Your task to perform on an android device: change text size in settings app Image 0: 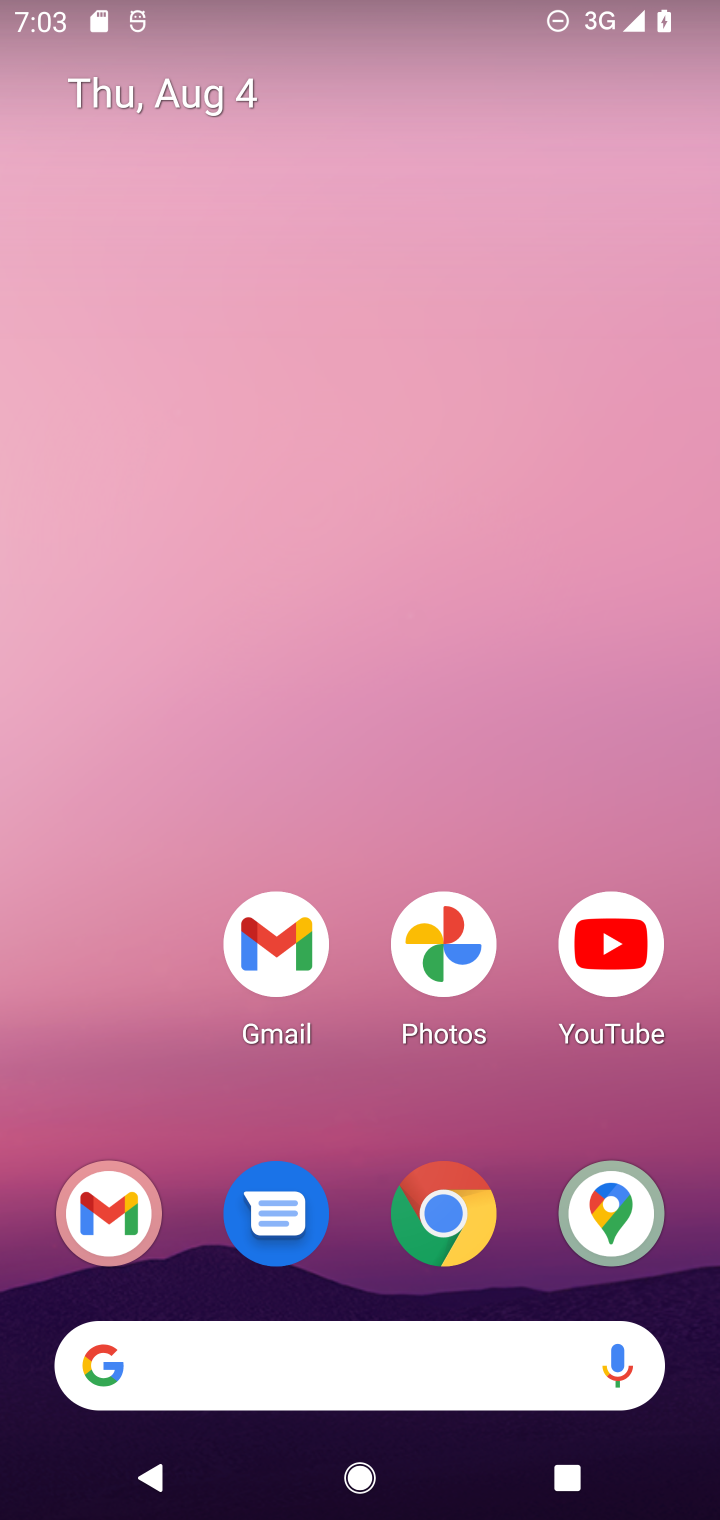
Step 0: drag from (153, 1088) to (144, 345)
Your task to perform on an android device: change text size in settings app Image 1: 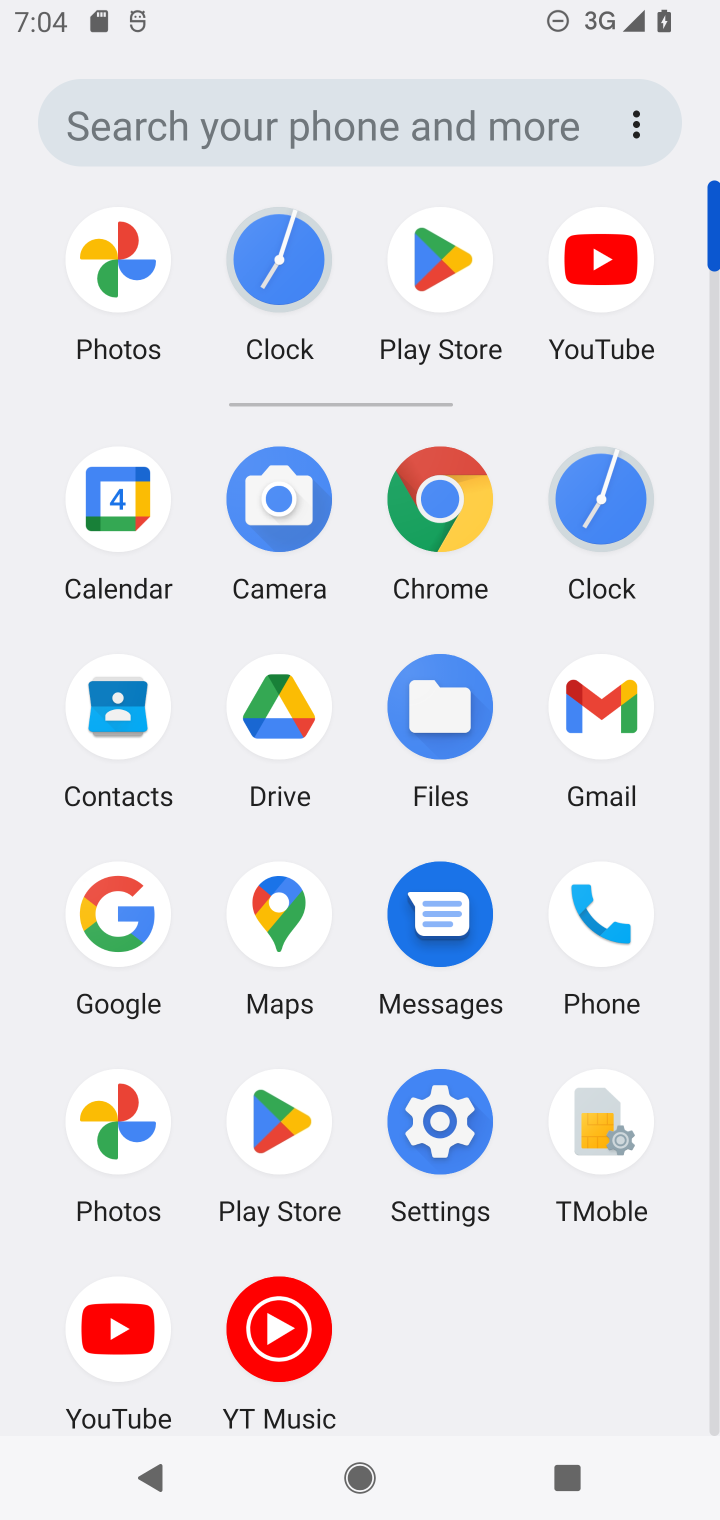
Step 1: click (449, 1135)
Your task to perform on an android device: change text size in settings app Image 2: 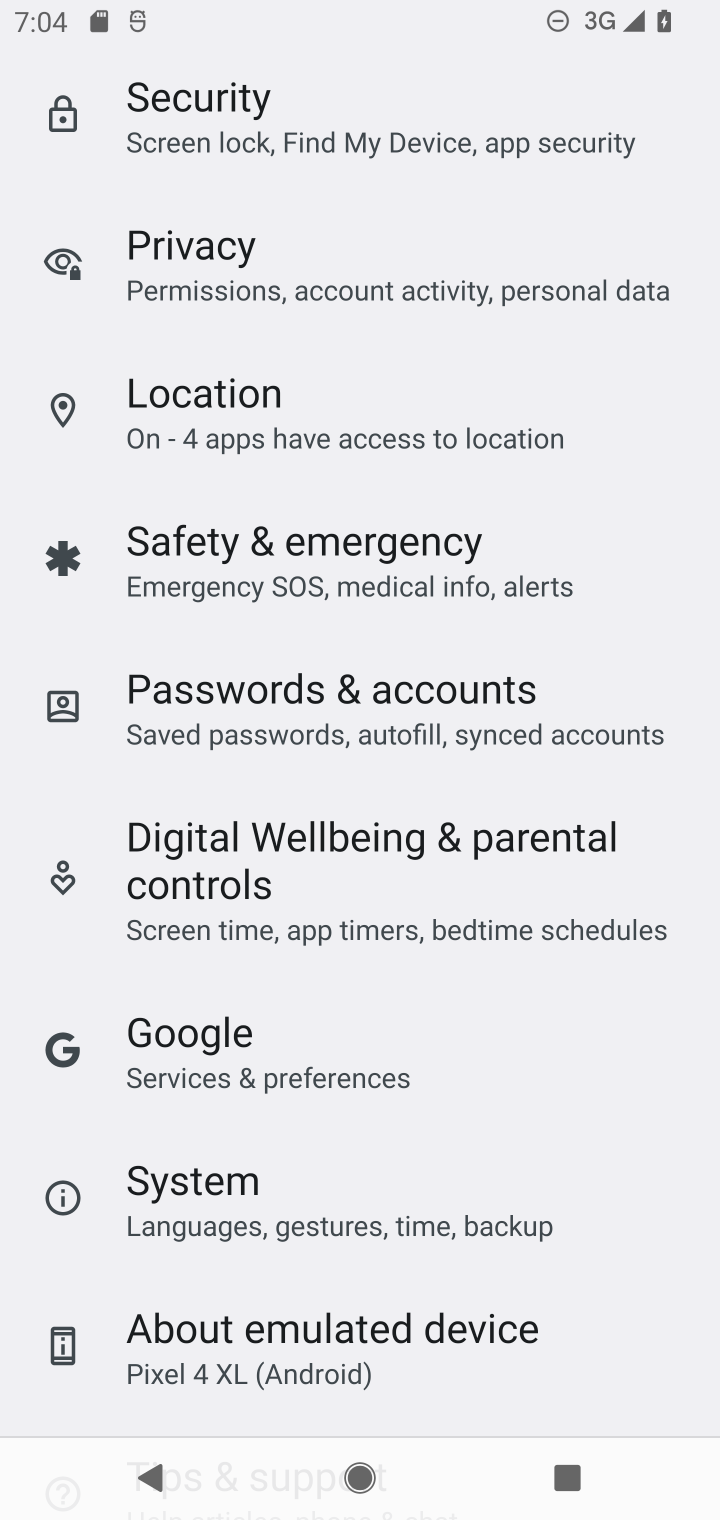
Step 2: drag from (668, 457) to (666, 877)
Your task to perform on an android device: change text size in settings app Image 3: 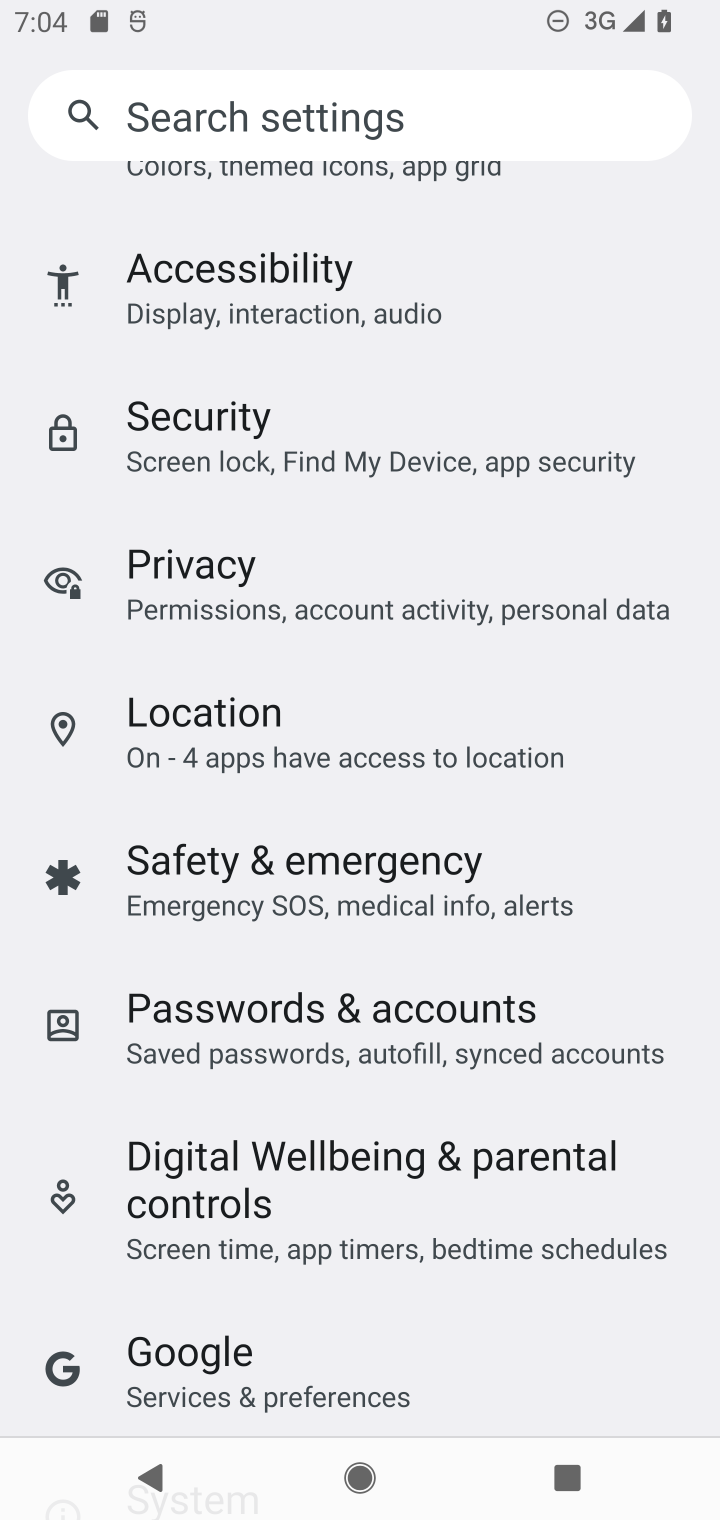
Step 3: drag from (644, 419) to (639, 896)
Your task to perform on an android device: change text size in settings app Image 4: 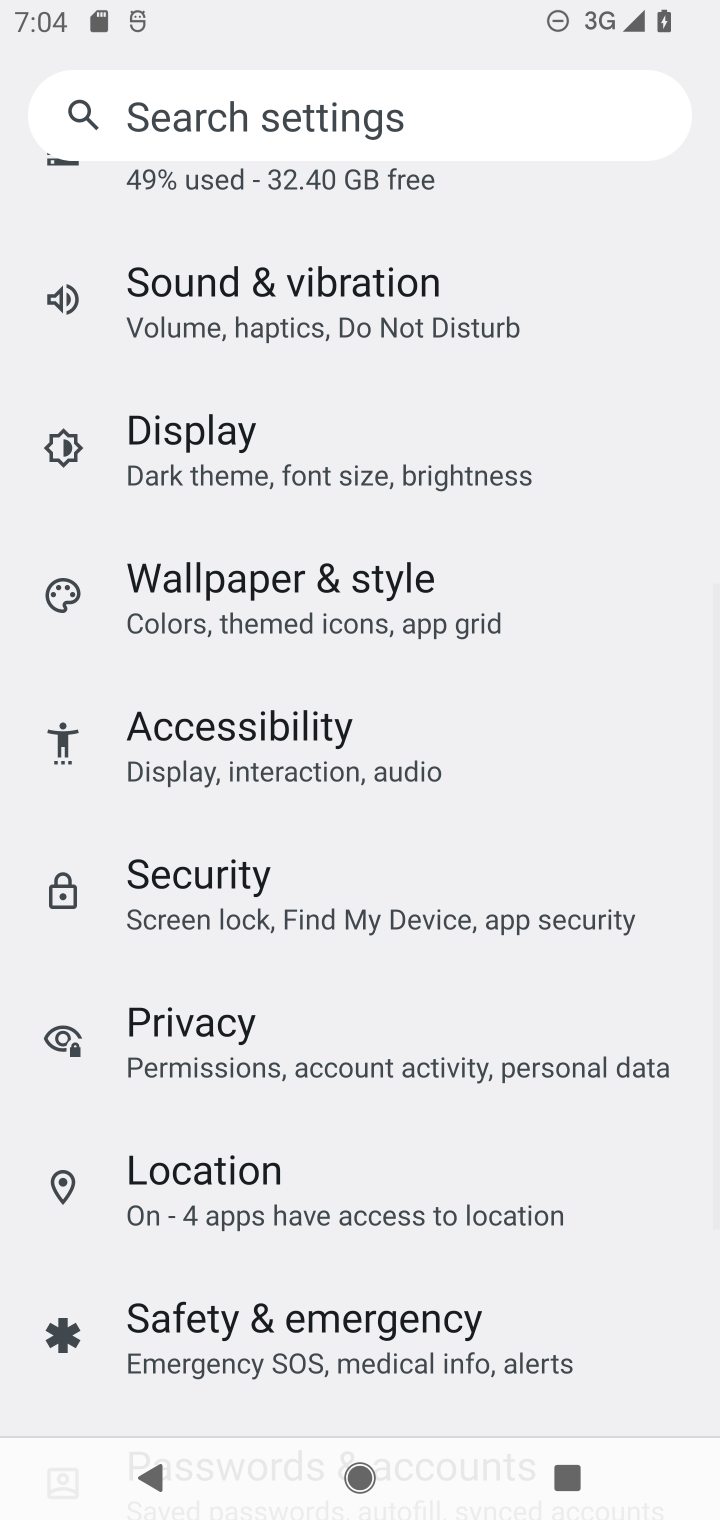
Step 4: drag from (600, 460) to (615, 844)
Your task to perform on an android device: change text size in settings app Image 5: 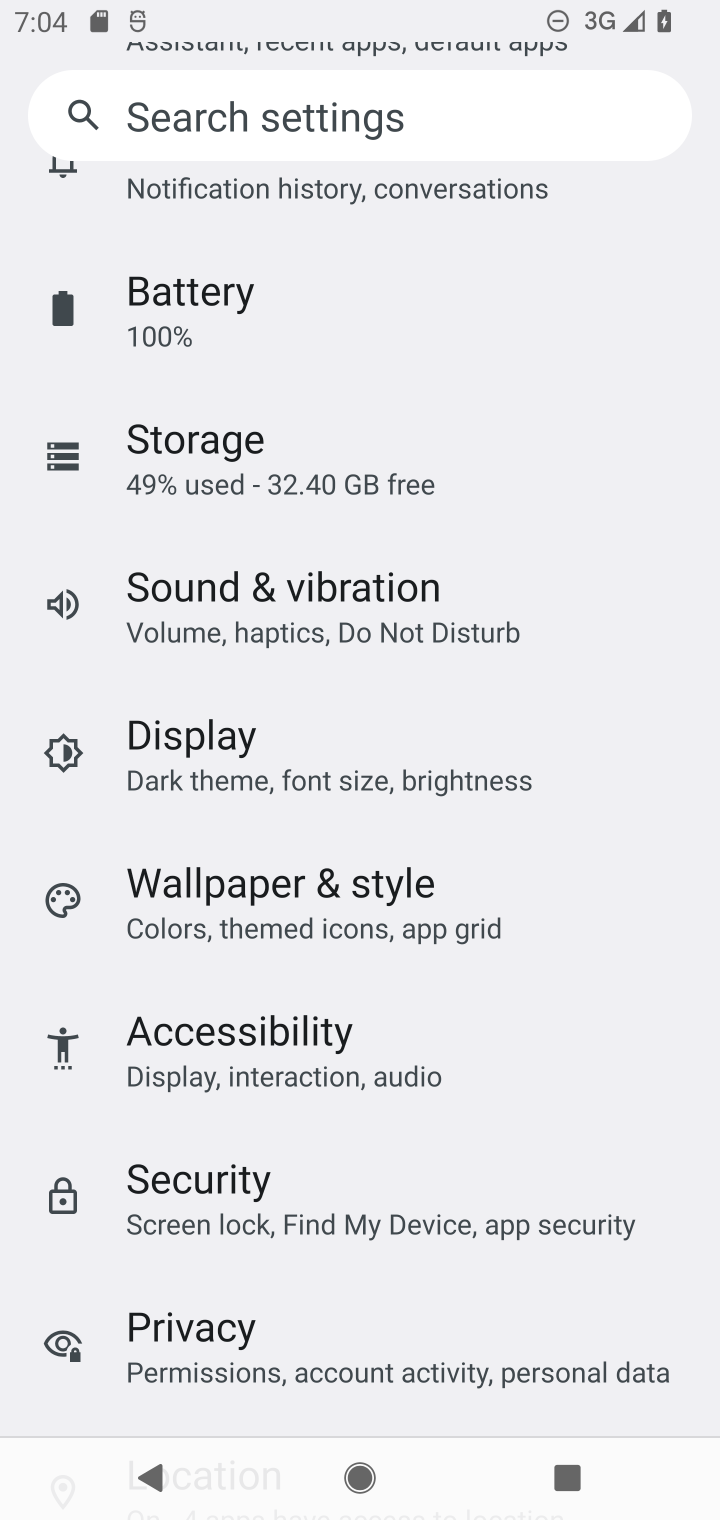
Step 5: drag from (610, 465) to (608, 931)
Your task to perform on an android device: change text size in settings app Image 6: 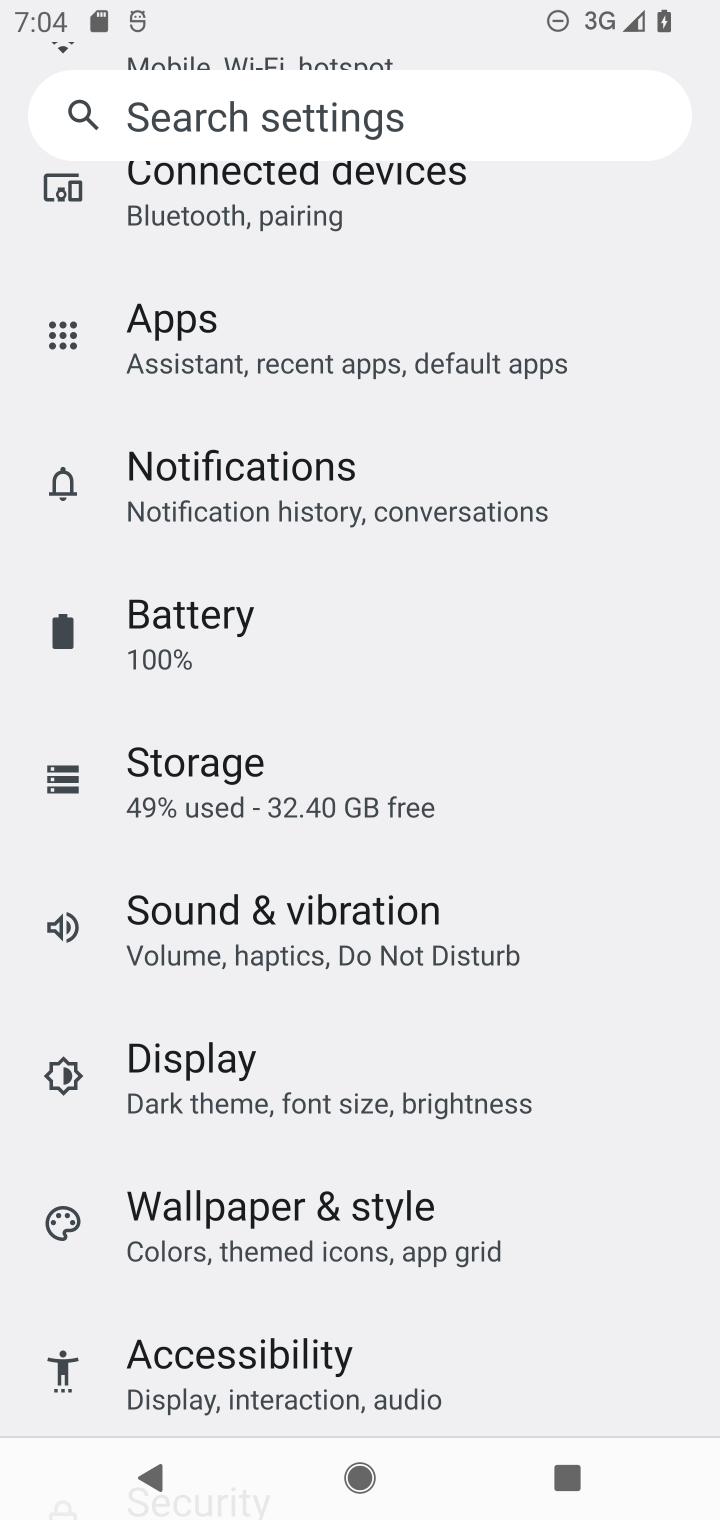
Step 6: drag from (598, 352) to (617, 859)
Your task to perform on an android device: change text size in settings app Image 7: 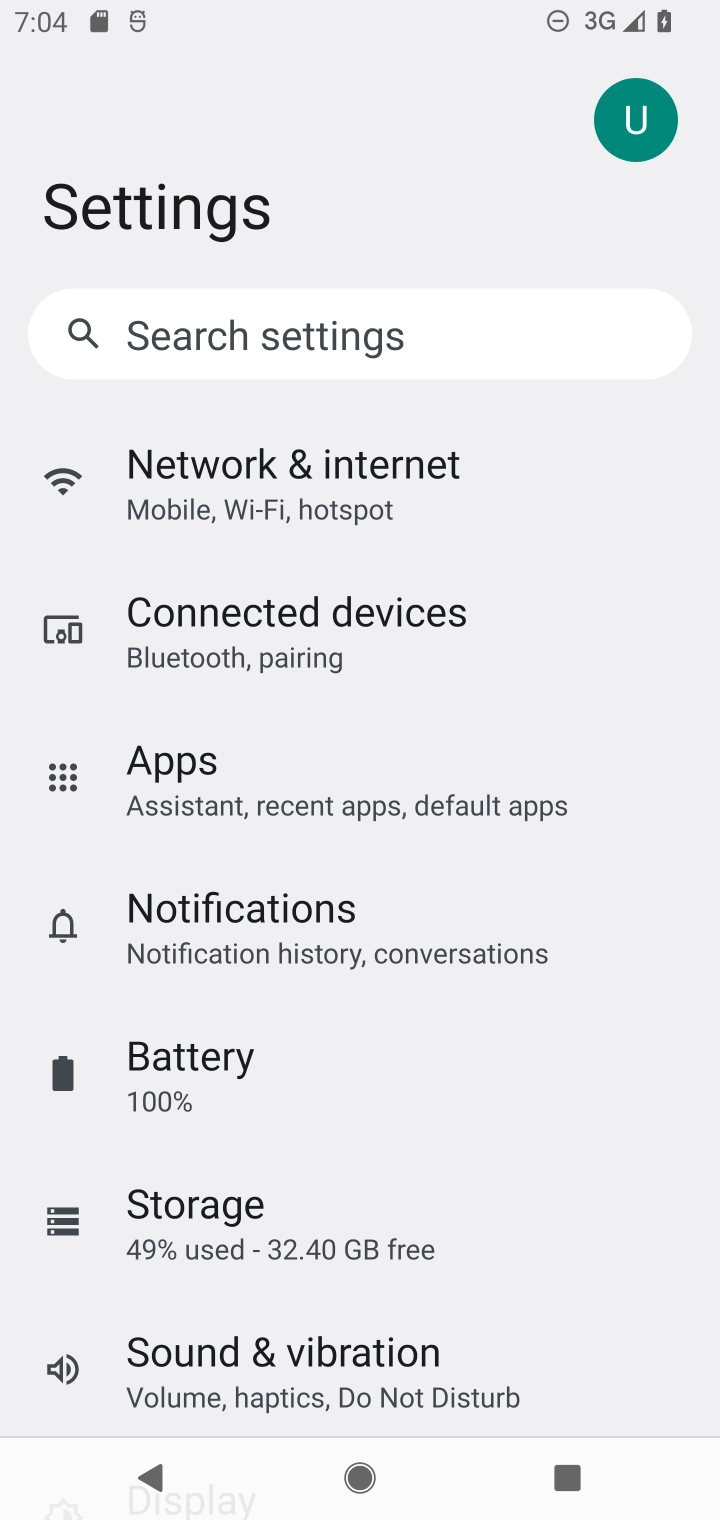
Step 7: drag from (617, 1076) to (617, 761)
Your task to perform on an android device: change text size in settings app Image 8: 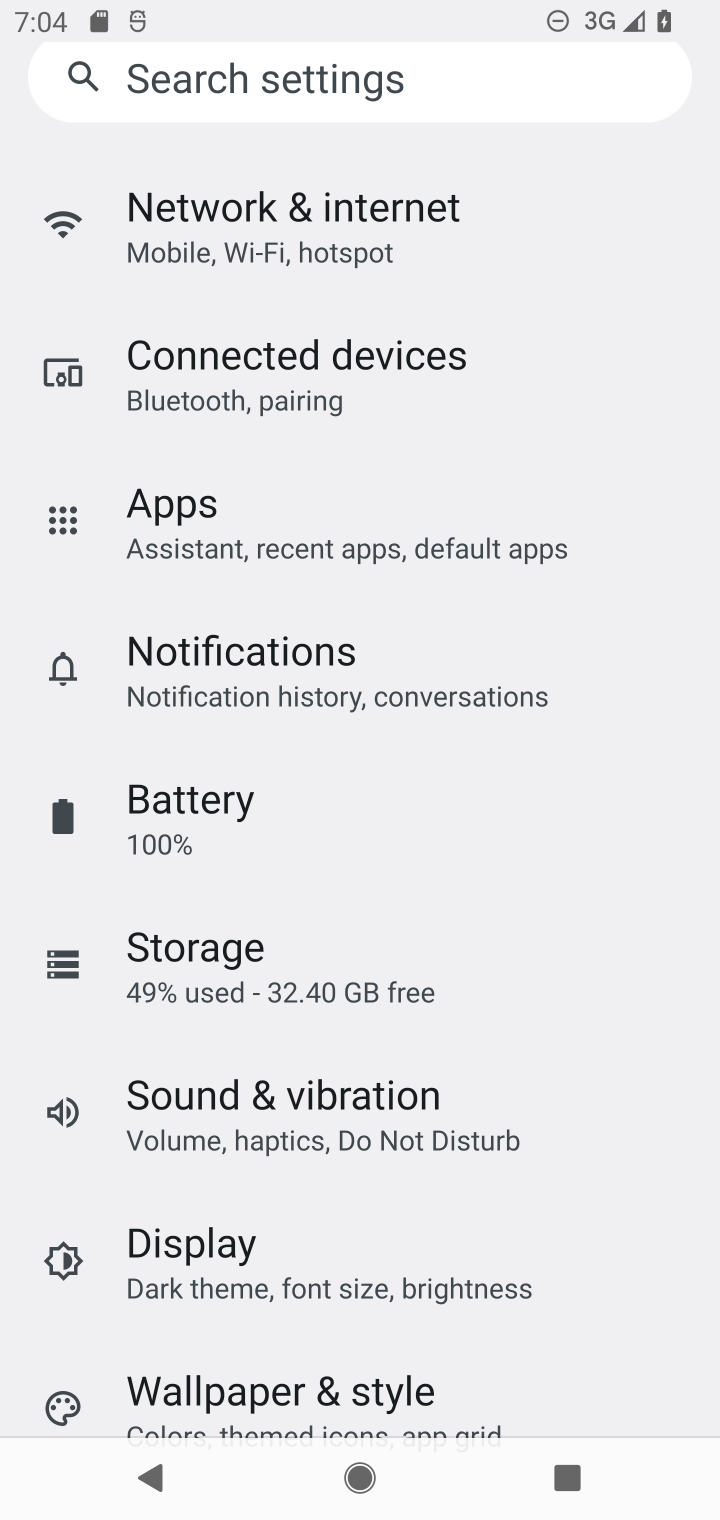
Step 8: drag from (578, 1176) to (593, 722)
Your task to perform on an android device: change text size in settings app Image 9: 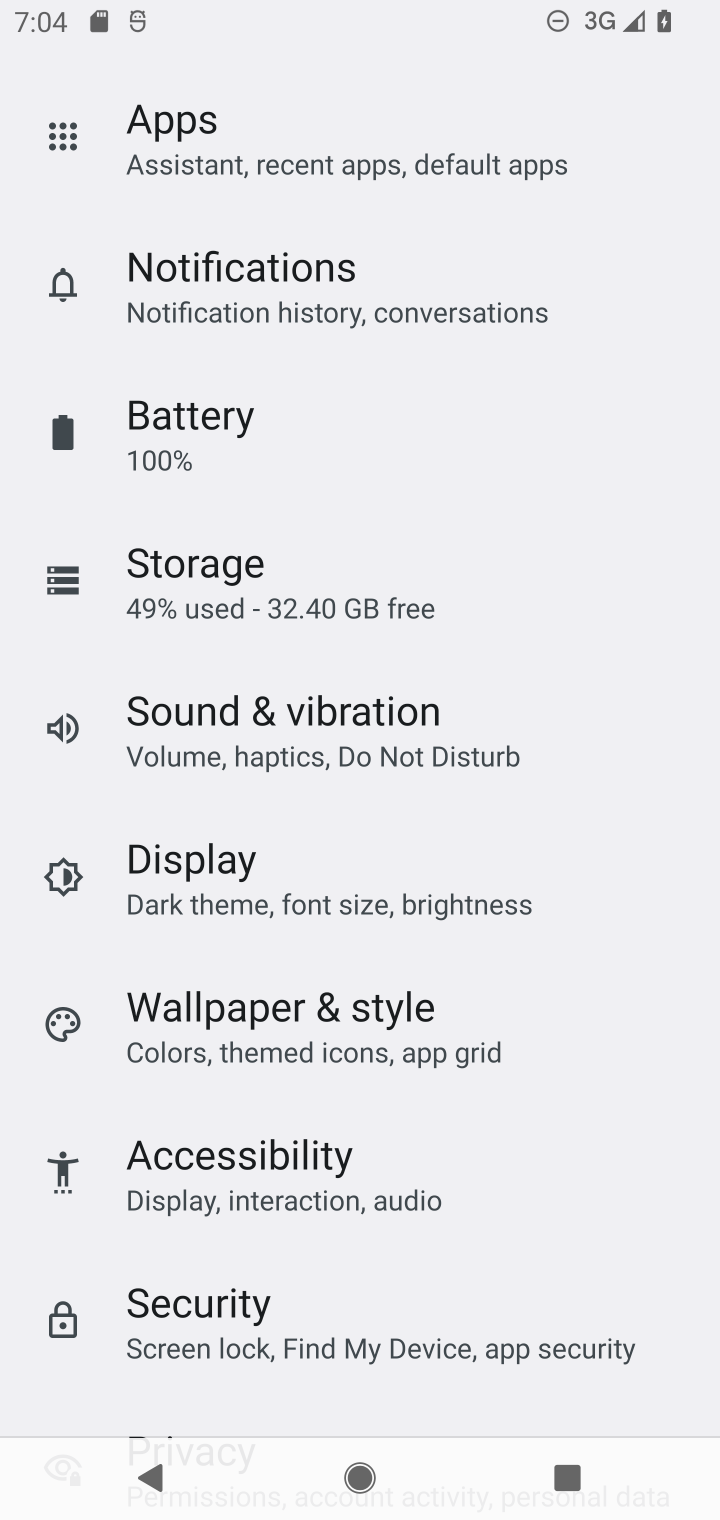
Step 9: drag from (581, 1175) to (583, 817)
Your task to perform on an android device: change text size in settings app Image 10: 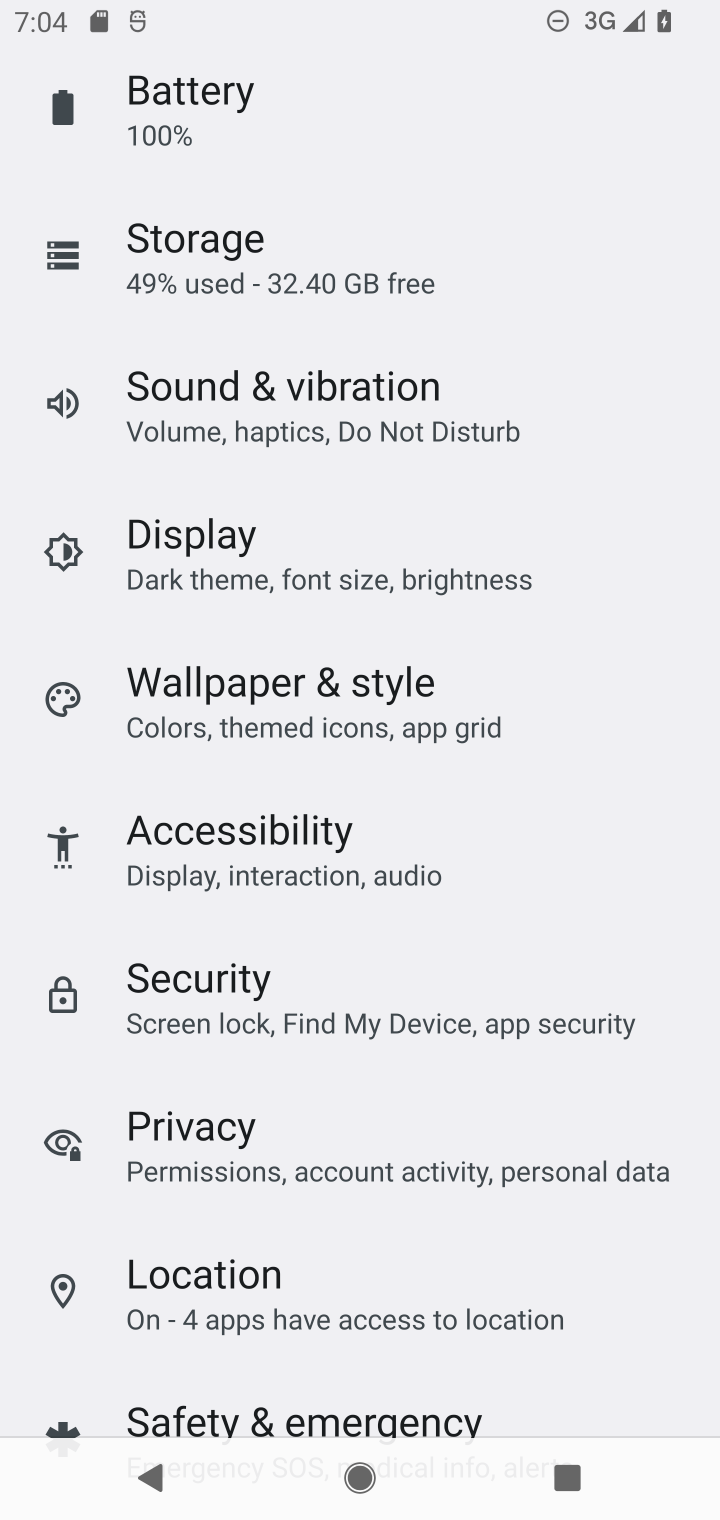
Step 10: click (498, 543)
Your task to perform on an android device: change text size in settings app Image 11: 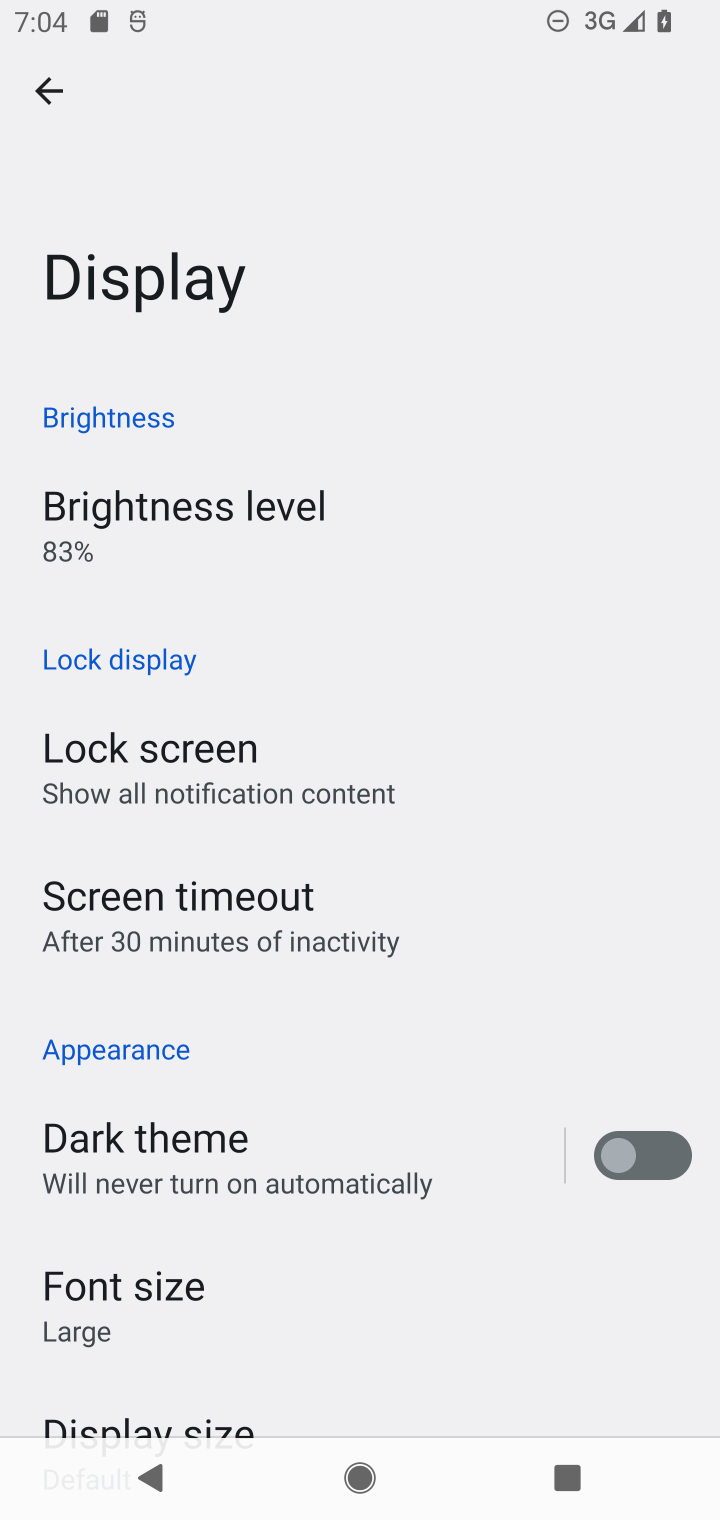
Step 11: drag from (468, 1063) to (451, 816)
Your task to perform on an android device: change text size in settings app Image 12: 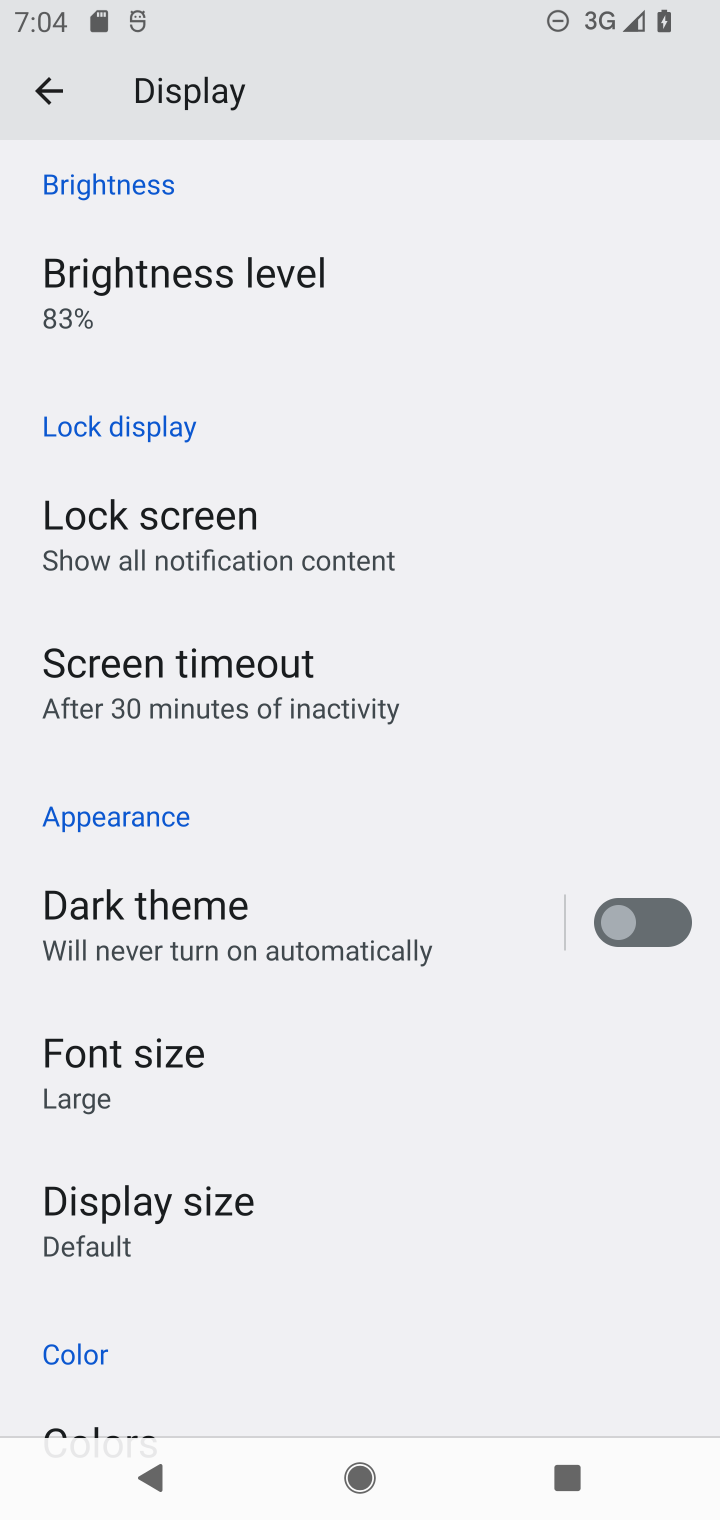
Step 12: click (360, 1064)
Your task to perform on an android device: change text size in settings app Image 13: 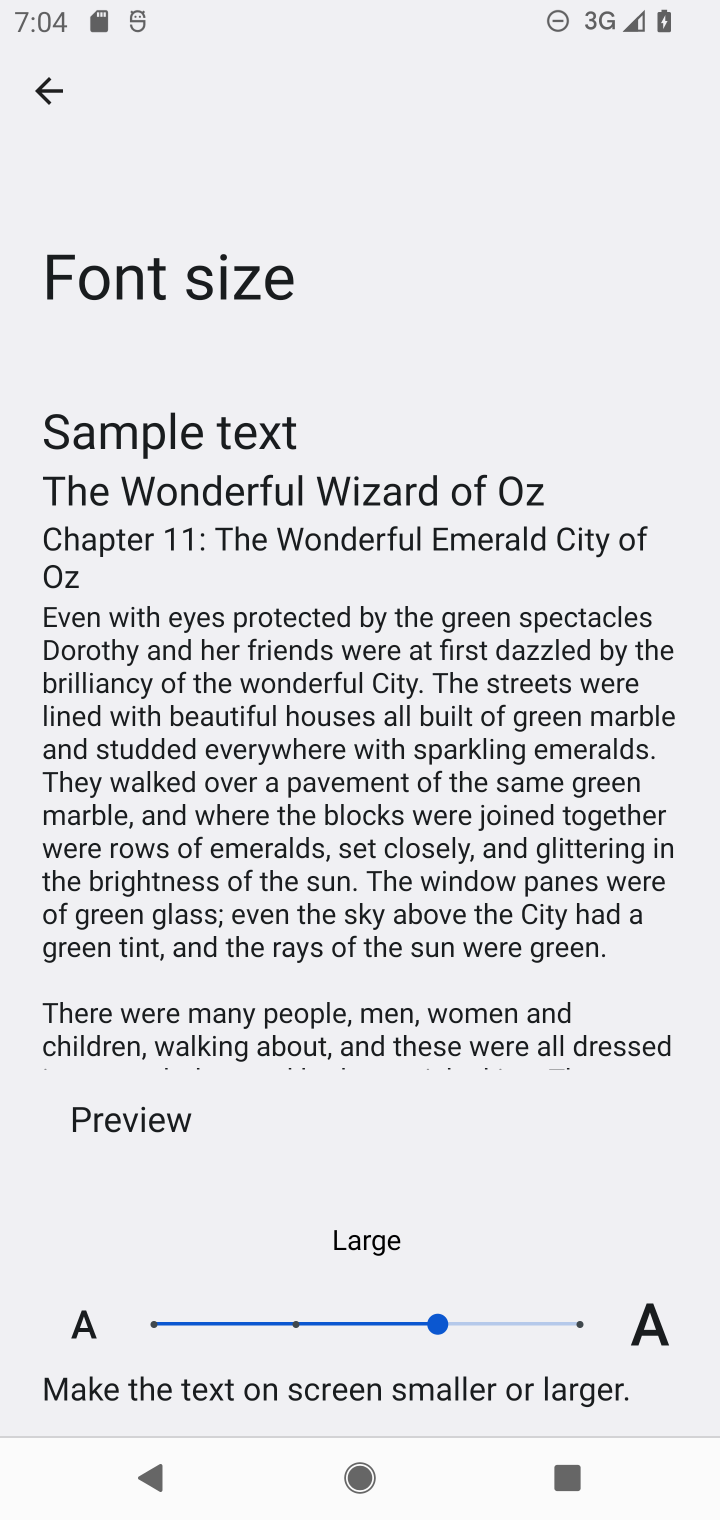
Step 13: click (579, 1333)
Your task to perform on an android device: change text size in settings app Image 14: 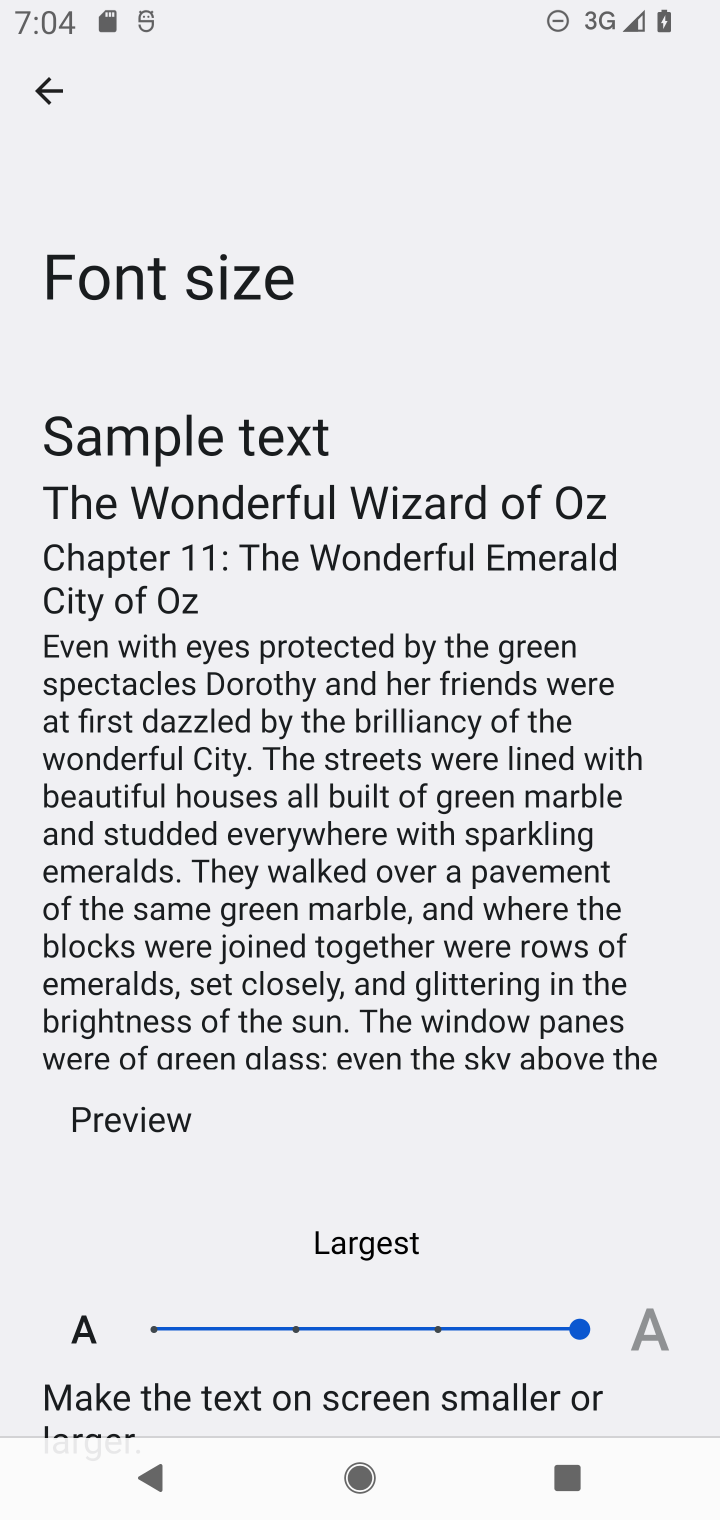
Step 14: task complete